Your task to perform on an android device: Go to Google maps Image 0: 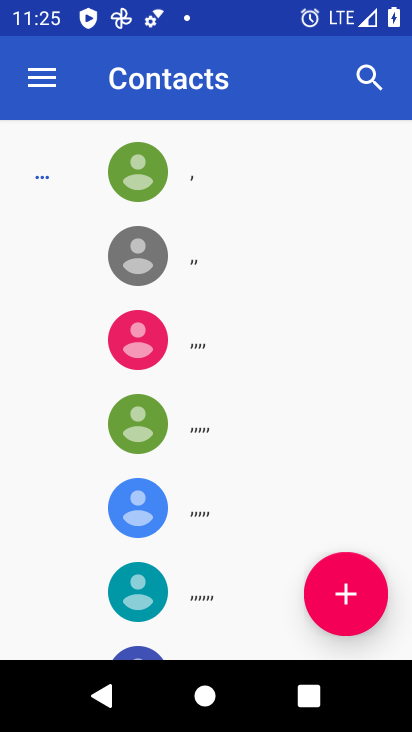
Step 0: press home button
Your task to perform on an android device: Go to Google maps Image 1: 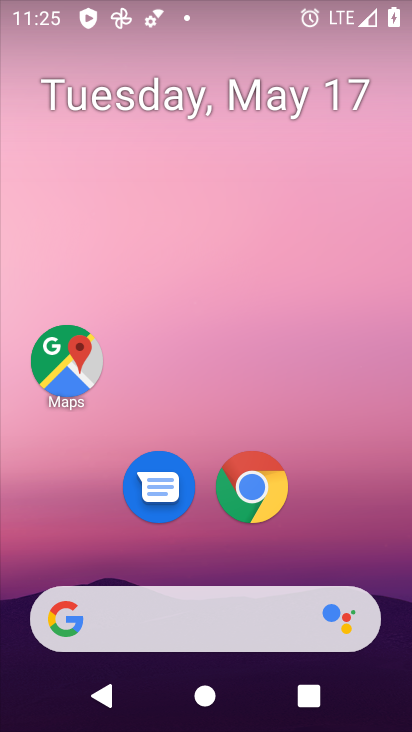
Step 1: click (76, 363)
Your task to perform on an android device: Go to Google maps Image 2: 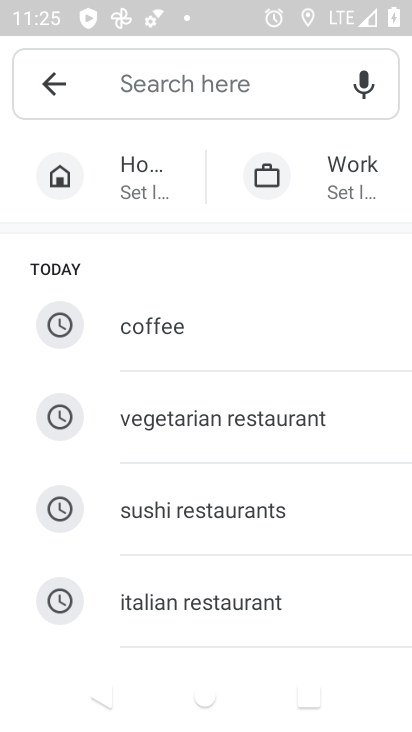
Step 2: task complete